Your task to perform on an android device: When is my next appointment? Image 0: 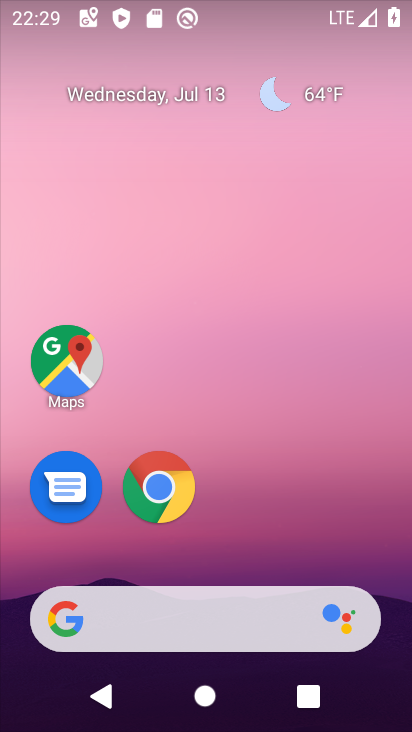
Step 0: drag from (237, 488) to (293, 8)
Your task to perform on an android device: When is my next appointment? Image 1: 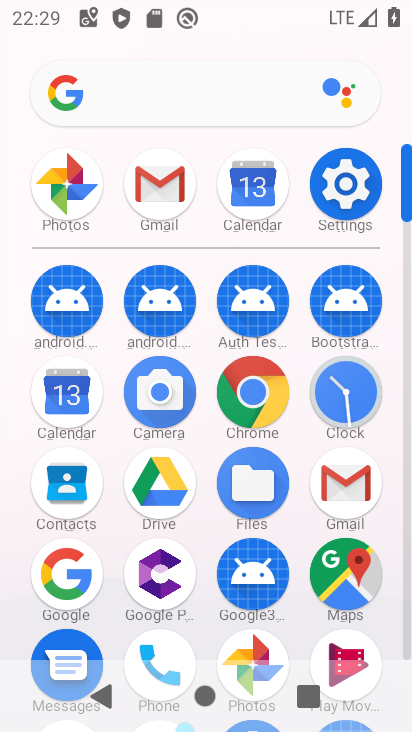
Step 1: drag from (71, 419) to (29, 427)
Your task to perform on an android device: When is my next appointment? Image 2: 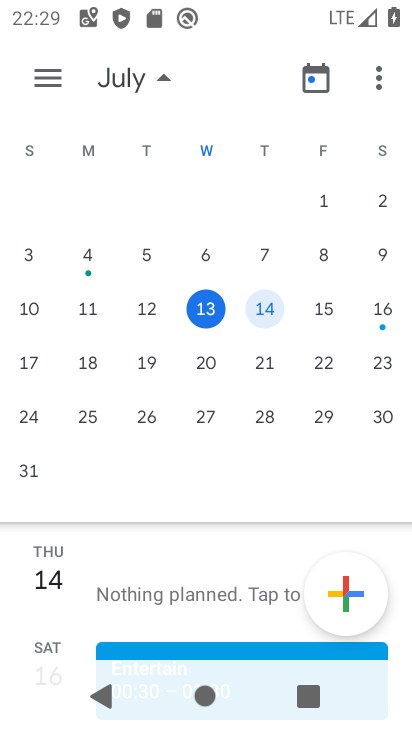
Step 2: click (53, 77)
Your task to perform on an android device: When is my next appointment? Image 3: 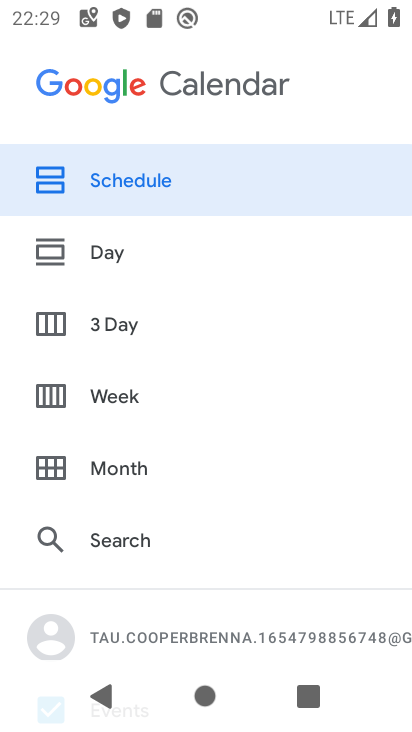
Step 3: click (88, 172)
Your task to perform on an android device: When is my next appointment? Image 4: 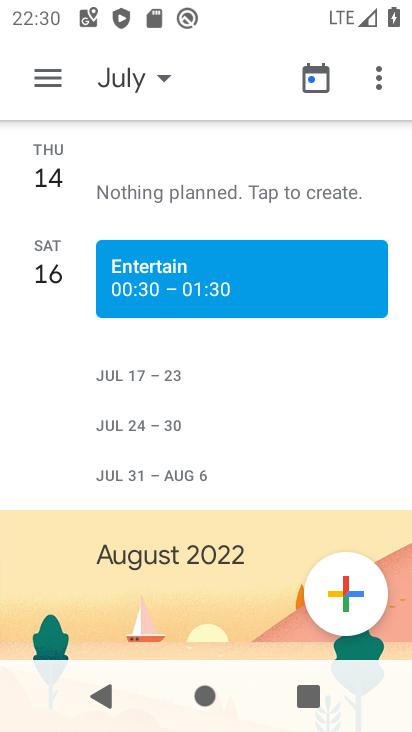
Step 4: task complete